Your task to perform on an android device: Go to Google maps Image 0: 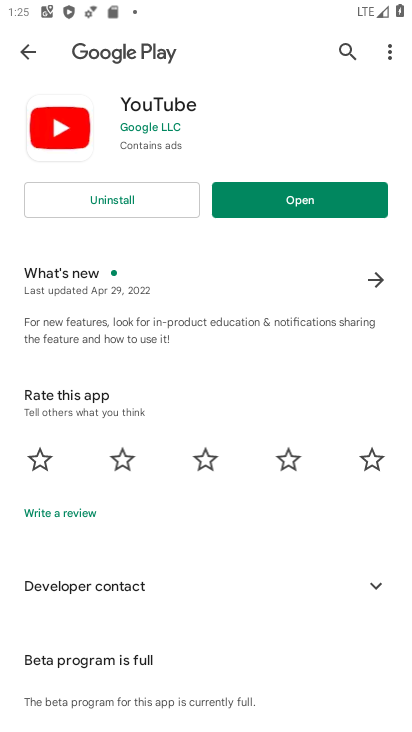
Step 0: press home button
Your task to perform on an android device: Go to Google maps Image 1: 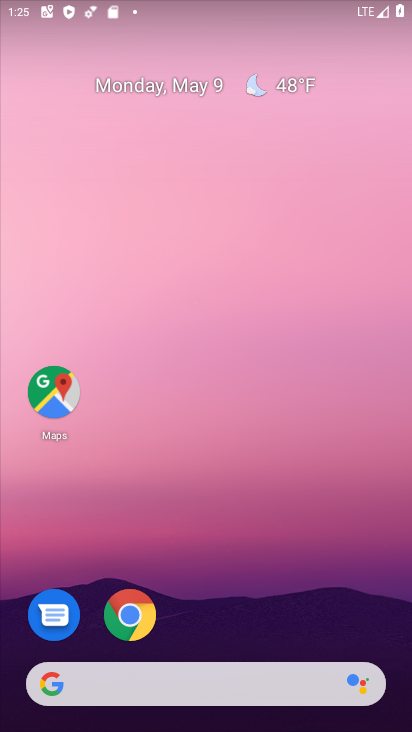
Step 1: click (50, 390)
Your task to perform on an android device: Go to Google maps Image 2: 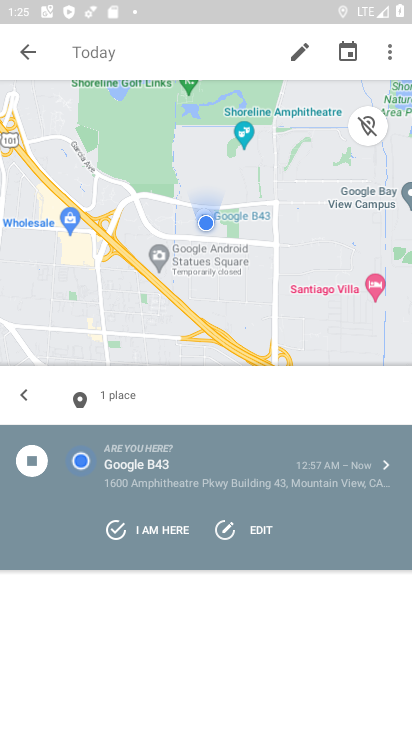
Step 2: task complete